Your task to perform on an android device: Open Chrome and go to settings Image 0: 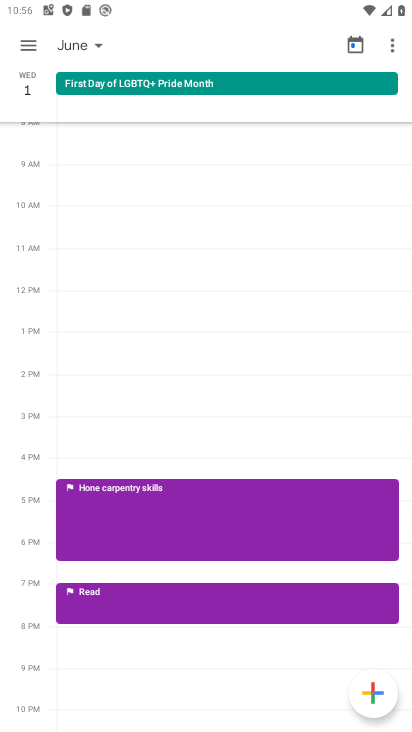
Step 0: press home button
Your task to perform on an android device: Open Chrome and go to settings Image 1: 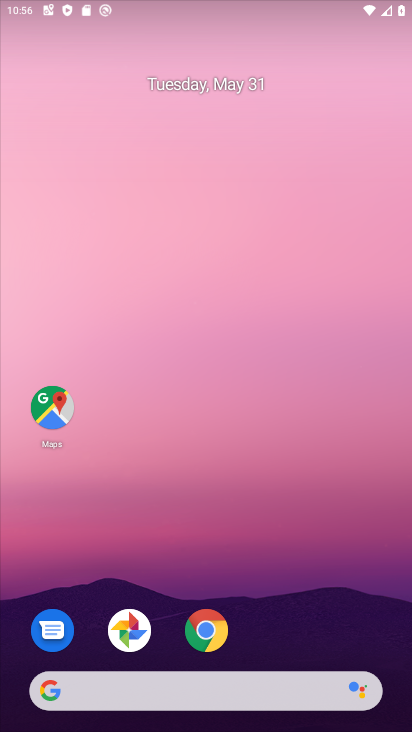
Step 1: drag from (270, 622) to (253, 150)
Your task to perform on an android device: Open Chrome and go to settings Image 2: 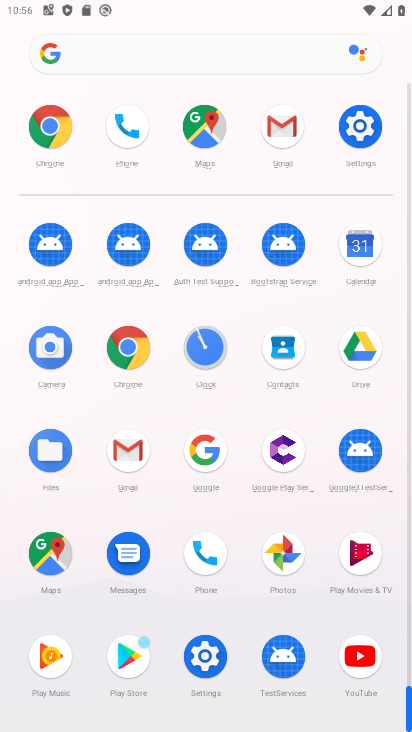
Step 2: click (353, 118)
Your task to perform on an android device: Open Chrome and go to settings Image 3: 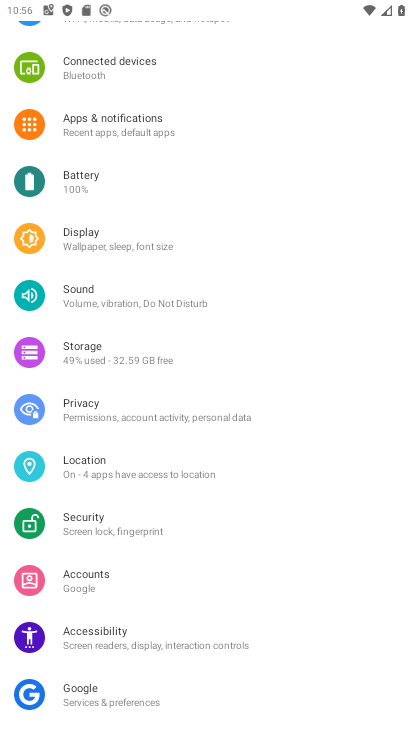
Step 3: drag from (165, 164) to (182, 578)
Your task to perform on an android device: Open Chrome and go to settings Image 4: 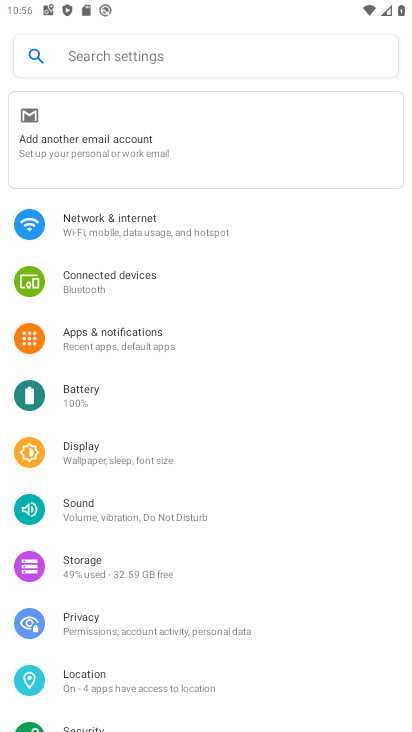
Step 4: press home button
Your task to perform on an android device: Open Chrome and go to settings Image 5: 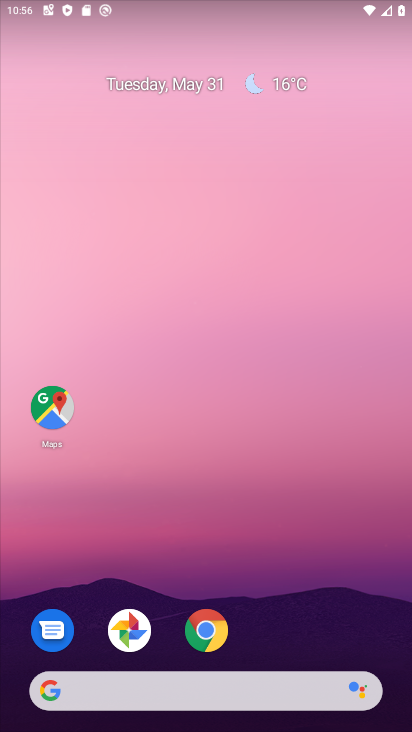
Step 5: click (207, 624)
Your task to perform on an android device: Open Chrome and go to settings Image 6: 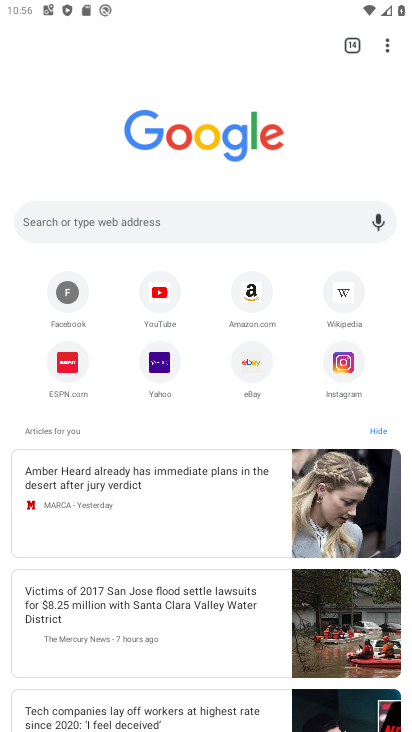
Step 6: click (389, 41)
Your task to perform on an android device: Open Chrome and go to settings Image 7: 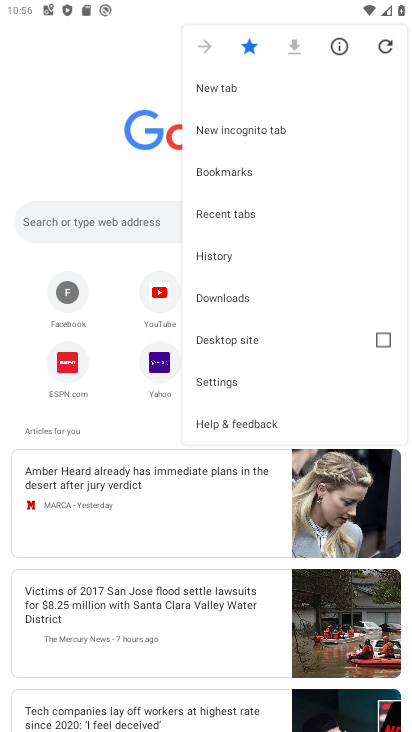
Step 7: click (234, 379)
Your task to perform on an android device: Open Chrome and go to settings Image 8: 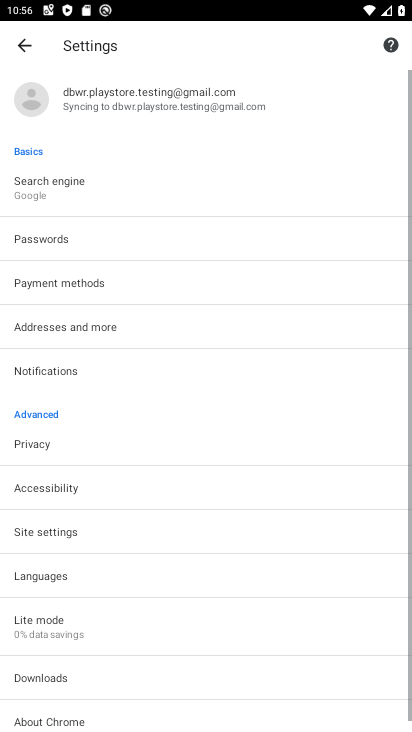
Step 8: task complete